Your task to perform on an android device: set the timer Image 0: 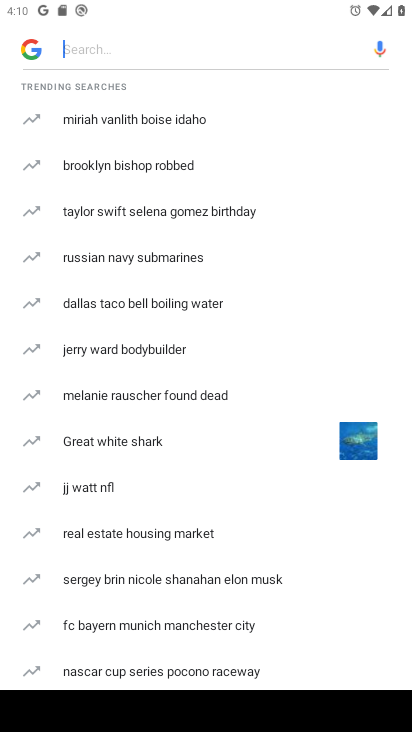
Step 0: press home button
Your task to perform on an android device: set the timer Image 1: 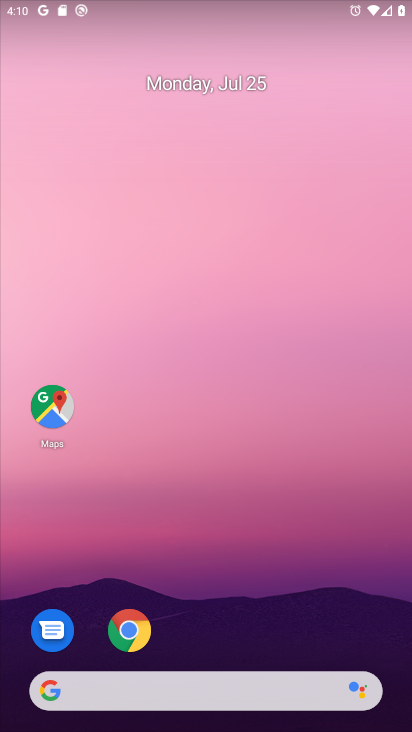
Step 1: drag from (187, 705) to (342, 184)
Your task to perform on an android device: set the timer Image 2: 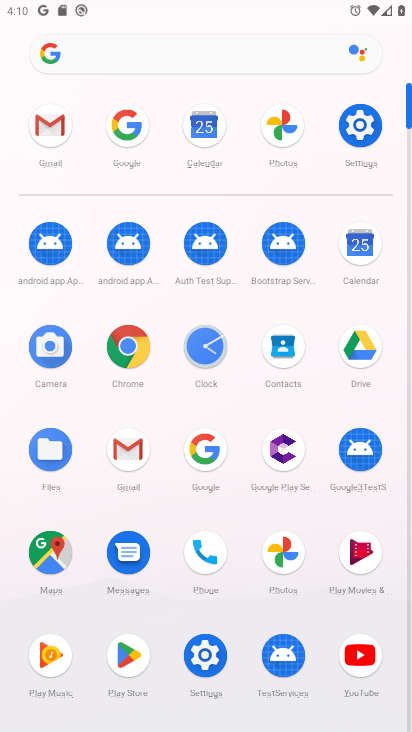
Step 2: click (209, 349)
Your task to perform on an android device: set the timer Image 3: 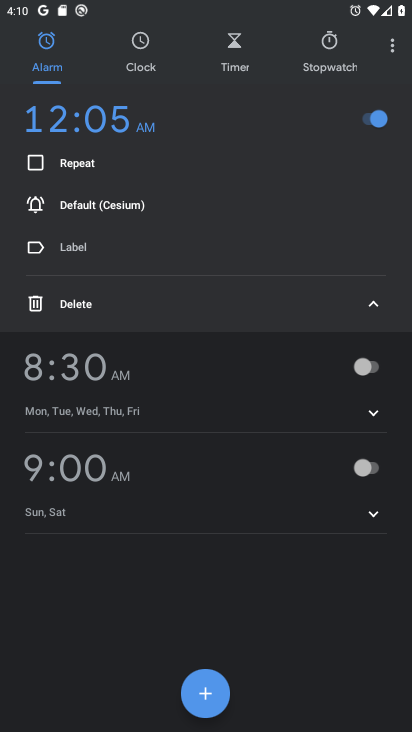
Step 3: click (234, 45)
Your task to perform on an android device: set the timer Image 4: 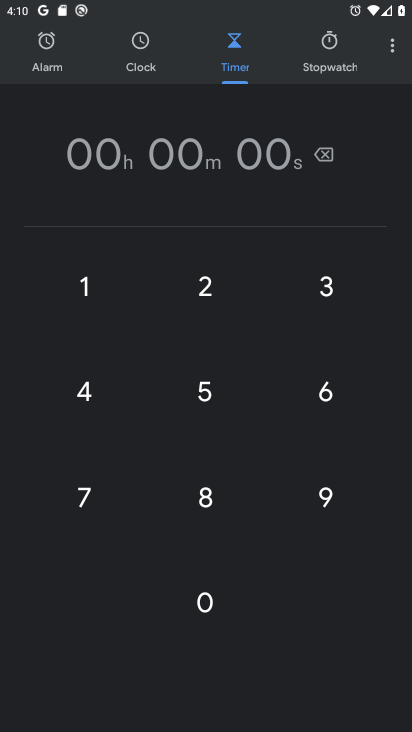
Step 4: type "1357"
Your task to perform on an android device: set the timer Image 5: 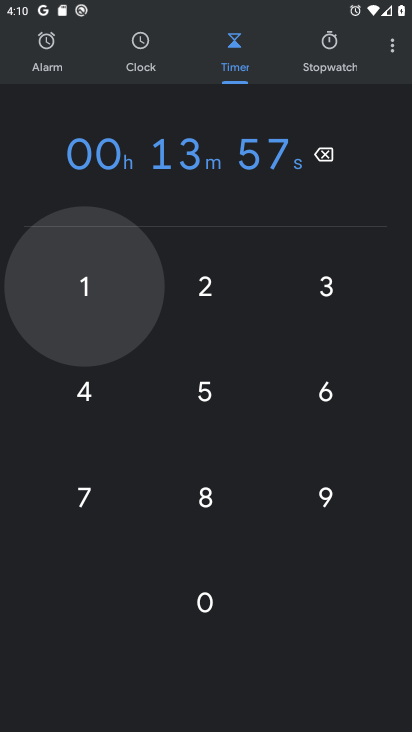
Step 5: type ""
Your task to perform on an android device: set the timer Image 6: 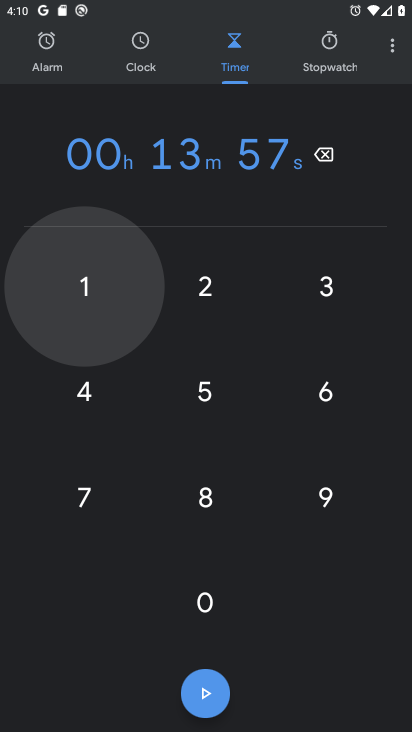
Step 6: click (201, 693)
Your task to perform on an android device: set the timer Image 7: 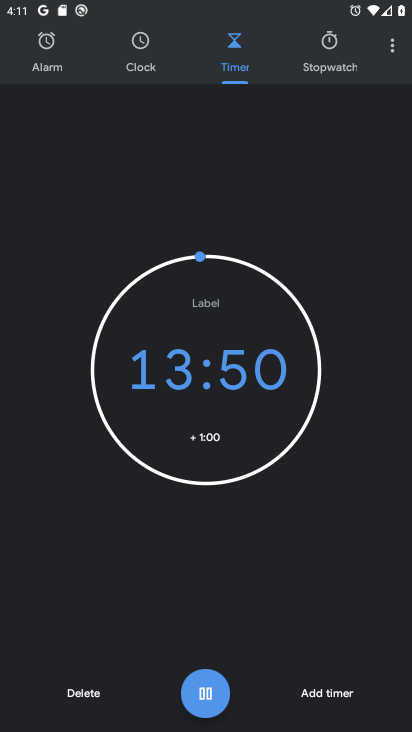
Step 7: click (214, 694)
Your task to perform on an android device: set the timer Image 8: 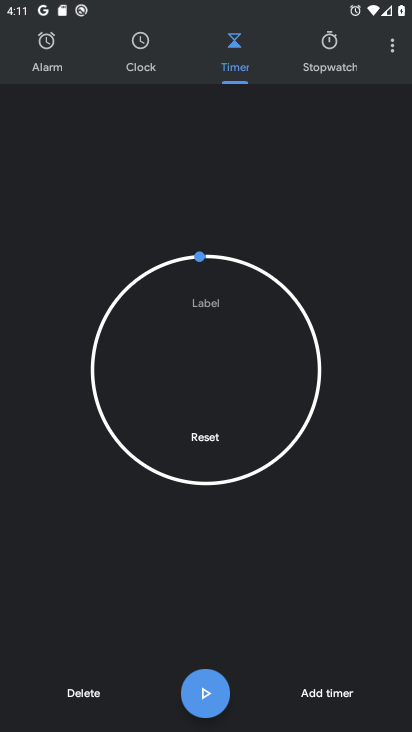
Step 8: task complete